Your task to perform on an android device: Find coffee shops on Maps Image 0: 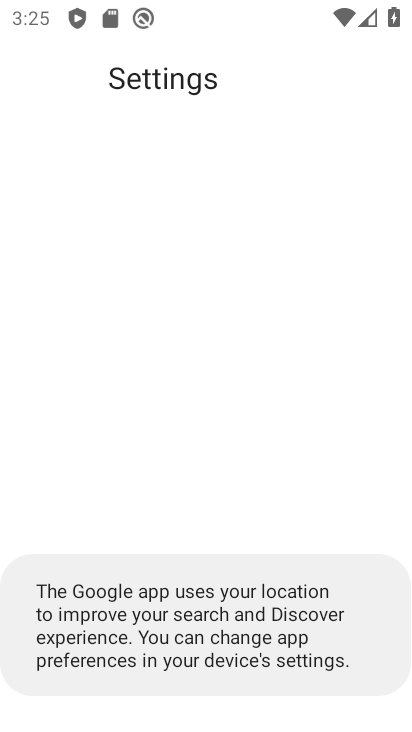
Step 0: click (252, 559)
Your task to perform on an android device: Find coffee shops on Maps Image 1: 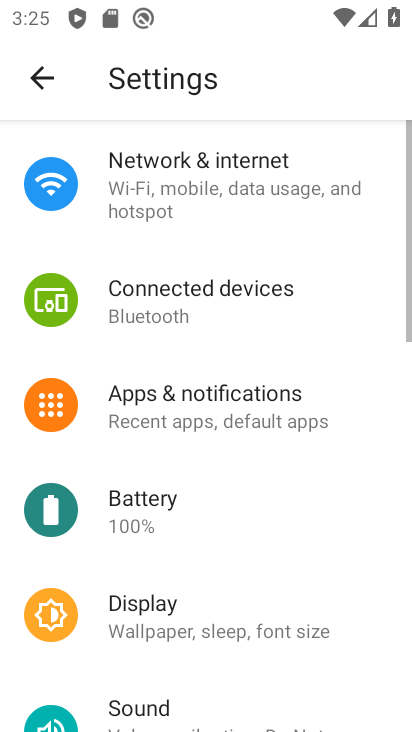
Step 1: press home button
Your task to perform on an android device: Find coffee shops on Maps Image 2: 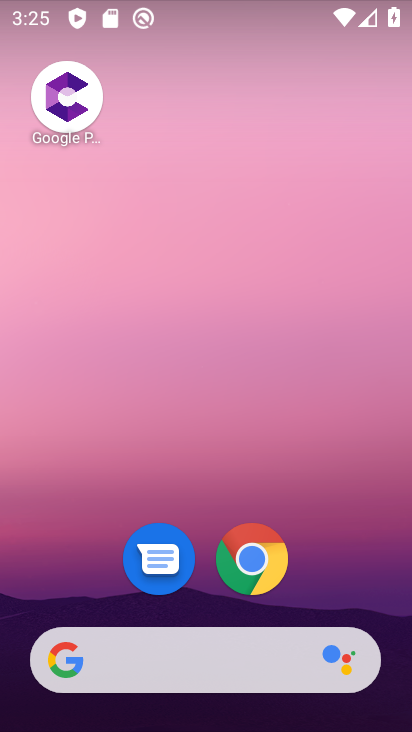
Step 2: drag from (229, 725) to (227, 3)
Your task to perform on an android device: Find coffee shops on Maps Image 3: 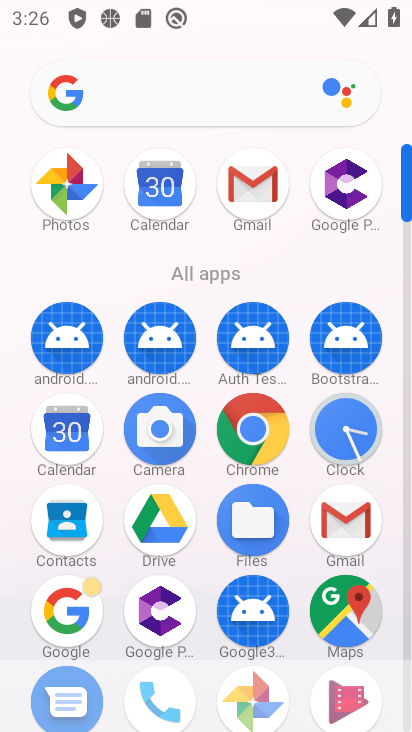
Step 3: click (338, 601)
Your task to perform on an android device: Find coffee shops on Maps Image 4: 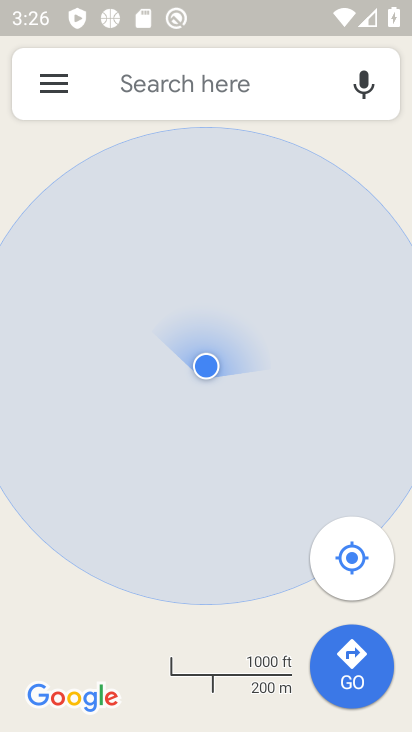
Step 4: click (225, 83)
Your task to perform on an android device: Find coffee shops on Maps Image 5: 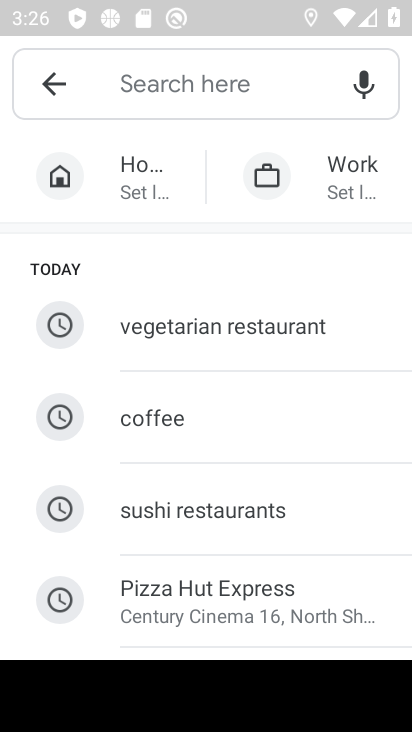
Step 5: type "coffee"
Your task to perform on an android device: Find coffee shops on Maps Image 6: 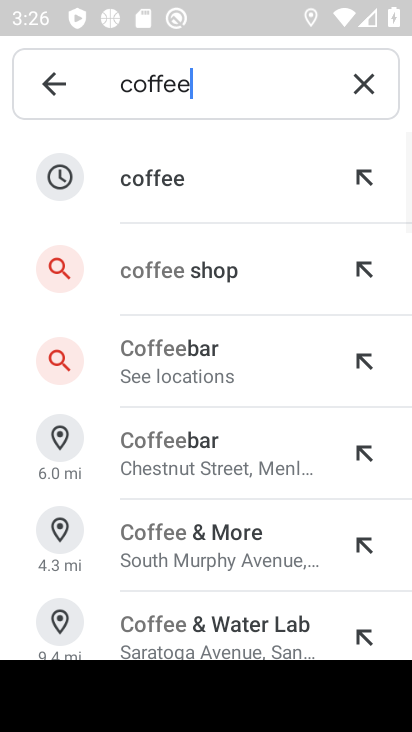
Step 6: click (152, 177)
Your task to perform on an android device: Find coffee shops on Maps Image 7: 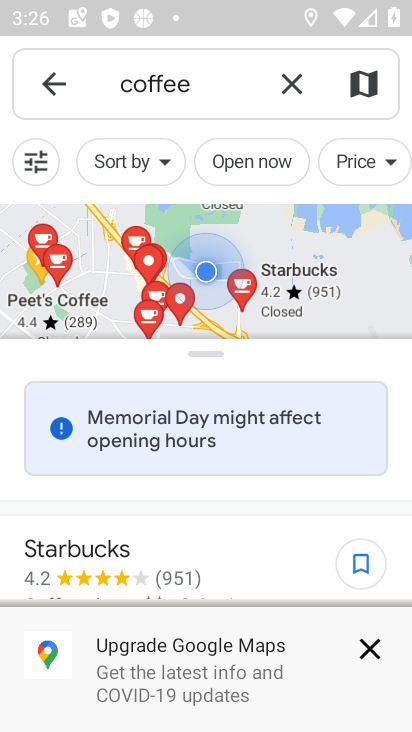
Step 7: click (216, 83)
Your task to perform on an android device: Find coffee shops on Maps Image 8: 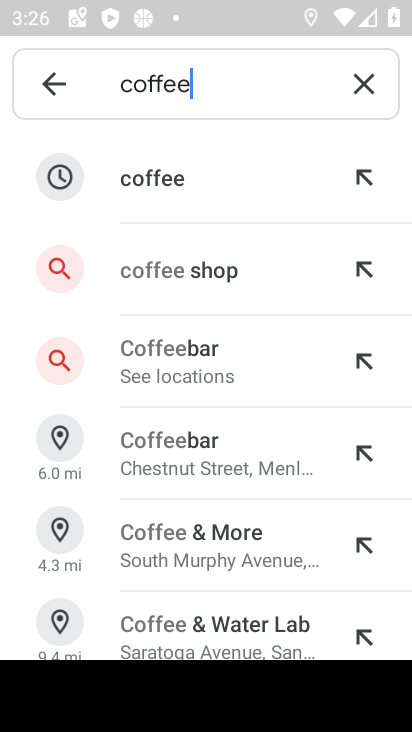
Step 8: type " shop"
Your task to perform on an android device: Find coffee shops on Maps Image 9: 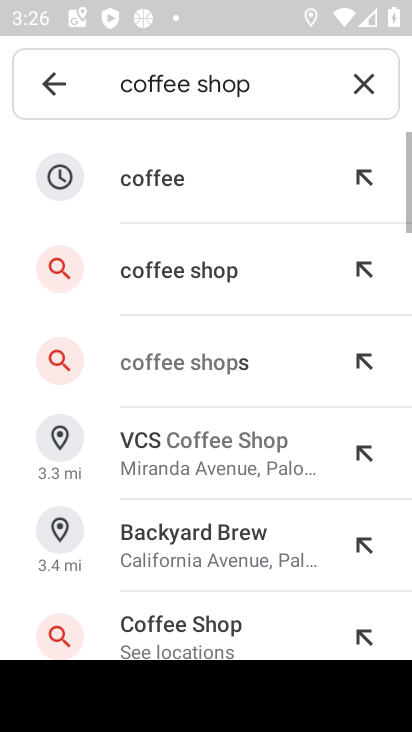
Step 9: click (187, 268)
Your task to perform on an android device: Find coffee shops on Maps Image 10: 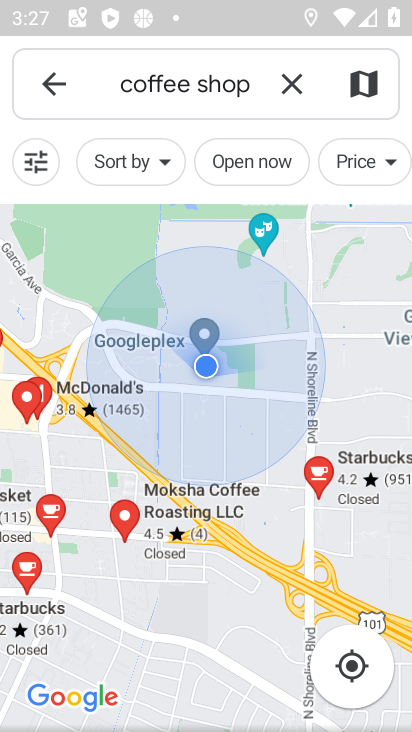
Step 10: task complete